Your task to perform on an android device: make emails show in primary in the gmail app Image 0: 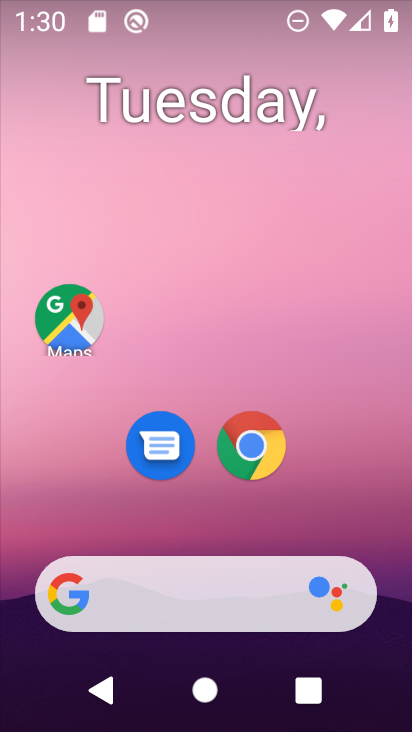
Step 0: drag from (225, 549) to (238, 210)
Your task to perform on an android device: make emails show in primary in the gmail app Image 1: 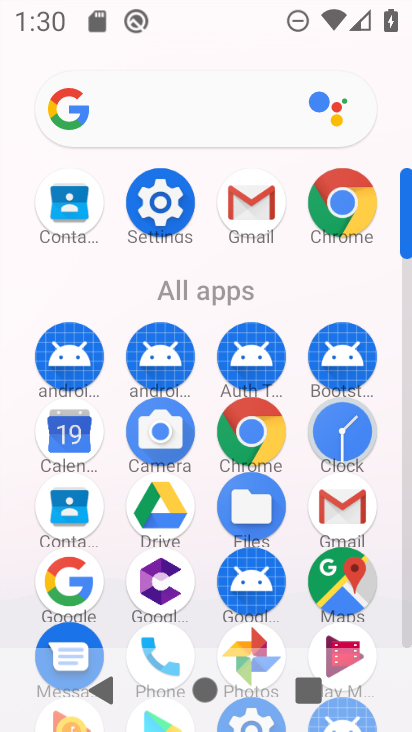
Step 1: click (255, 206)
Your task to perform on an android device: make emails show in primary in the gmail app Image 2: 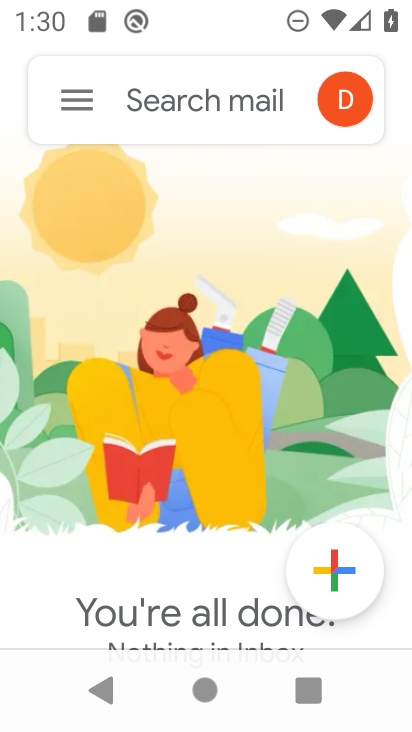
Step 2: click (45, 109)
Your task to perform on an android device: make emails show in primary in the gmail app Image 3: 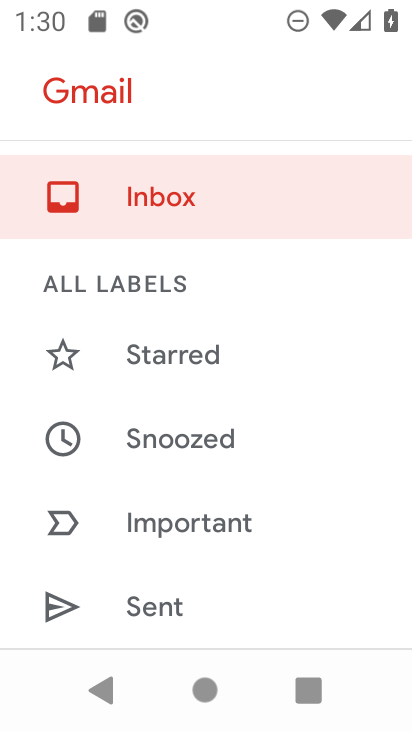
Step 3: drag from (167, 490) to (207, 162)
Your task to perform on an android device: make emails show in primary in the gmail app Image 4: 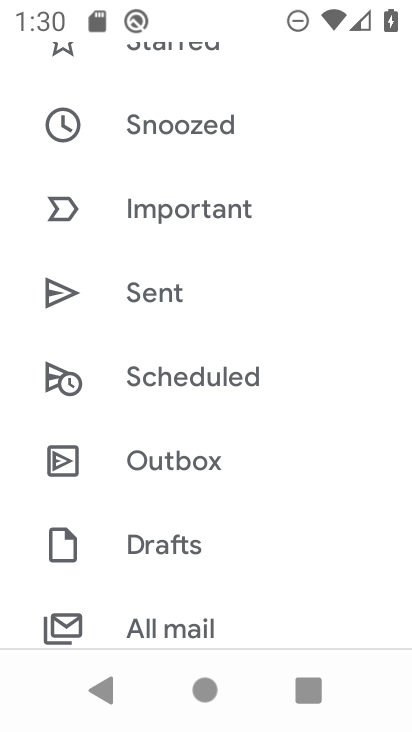
Step 4: drag from (242, 511) to (263, 213)
Your task to perform on an android device: make emails show in primary in the gmail app Image 5: 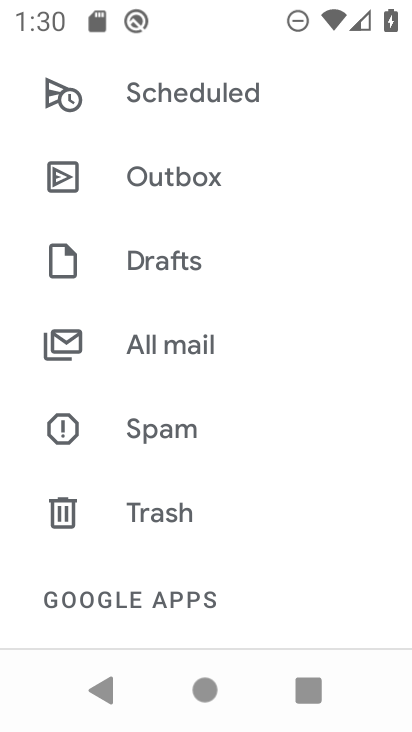
Step 5: click (180, 348)
Your task to perform on an android device: make emails show in primary in the gmail app Image 6: 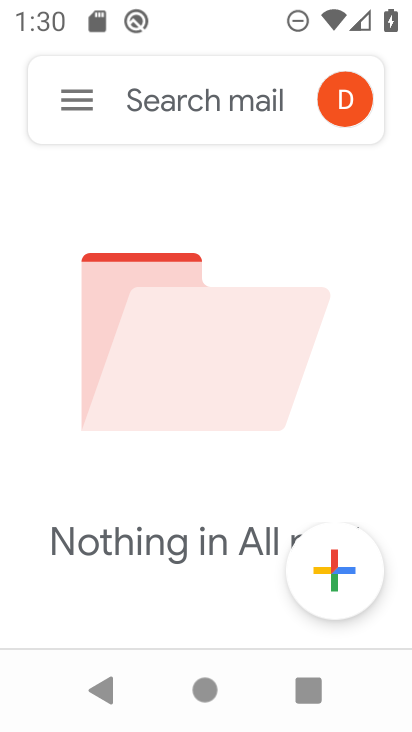
Step 6: task complete